Your task to perform on an android device: open chrome privacy settings Image 0: 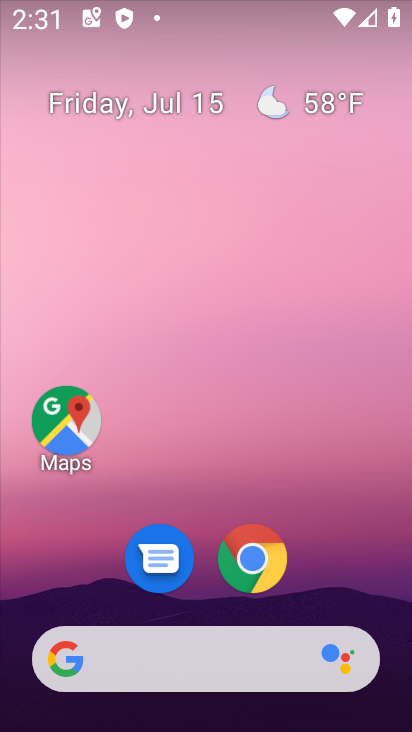
Step 0: drag from (365, 605) to (353, 151)
Your task to perform on an android device: open chrome privacy settings Image 1: 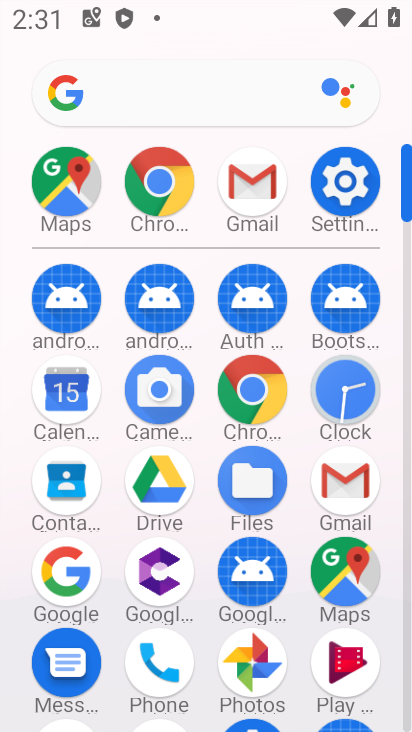
Step 1: click (271, 398)
Your task to perform on an android device: open chrome privacy settings Image 2: 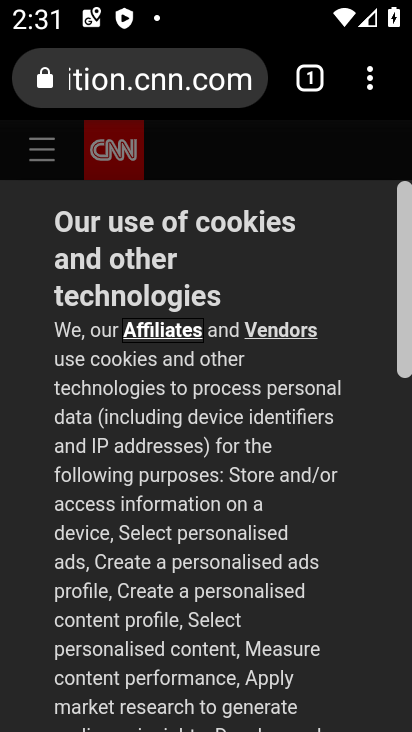
Step 2: click (368, 92)
Your task to perform on an android device: open chrome privacy settings Image 3: 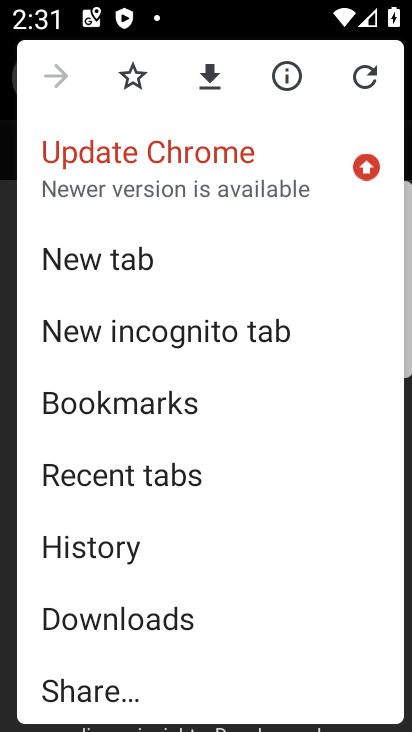
Step 3: drag from (325, 457) to (331, 357)
Your task to perform on an android device: open chrome privacy settings Image 4: 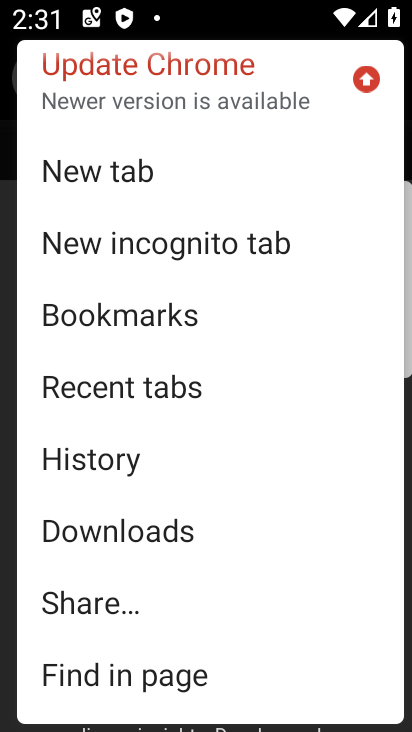
Step 4: drag from (332, 491) to (337, 378)
Your task to perform on an android device: open chrome privacy settings Image 5: 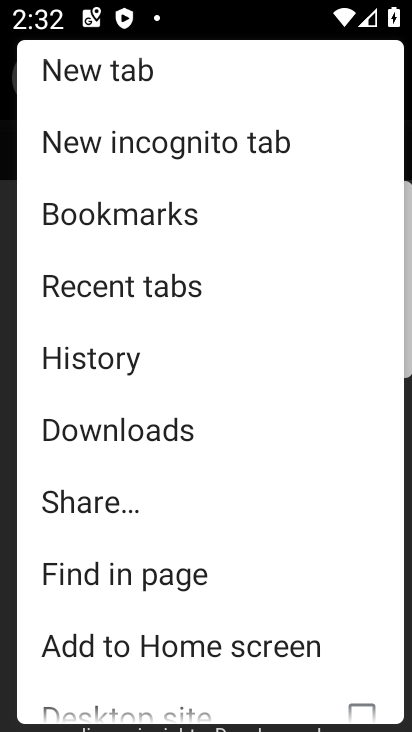
Step 5: drag from (321, 497) to (313, 358)
Your task to perform on an android device: open chrome privacy settings Image 6: 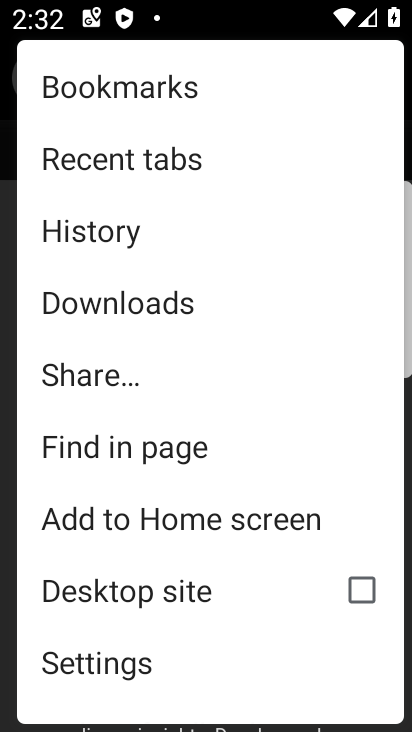
Step 6: drag from (280, 488) to (270, 359)
Your task to perform on an android device: open chrome privacy settings Image 7: 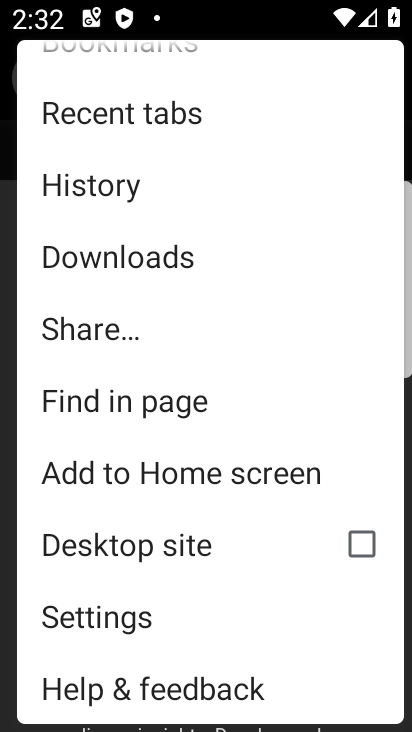
Step 7: click (225, 615)
Your task to perform on an android device: open chrome privacy settings Image 8: 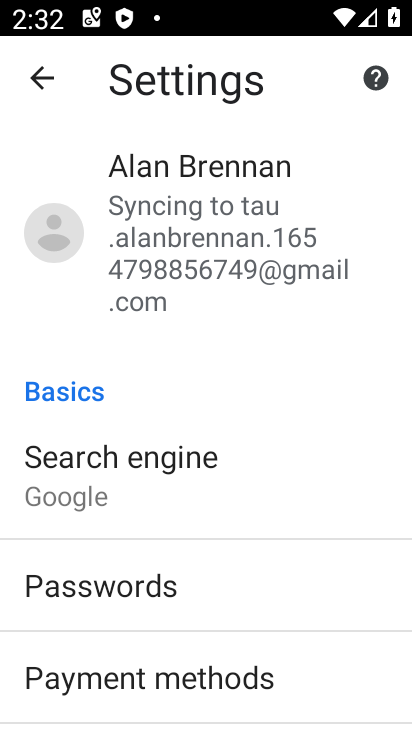
Step 8: drag from (281, 571) to (284, 464)
Your task to perform on an android device: open chrome privacy settings Image 9: 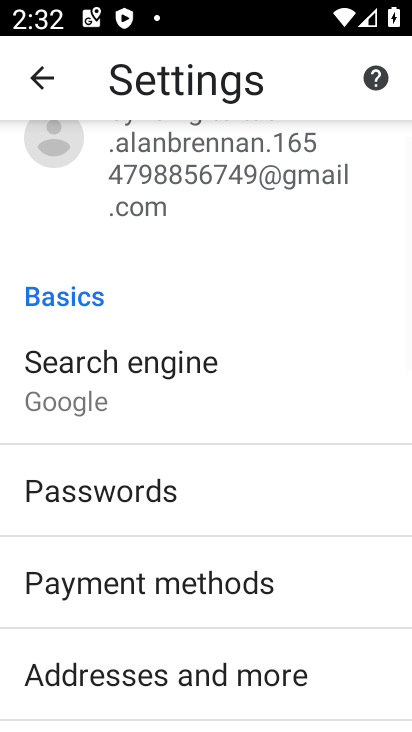
Step 9: drag from (305, 608) to (308, 501)
Your task to perform on an android device: open chrome privacy settings Image 10: 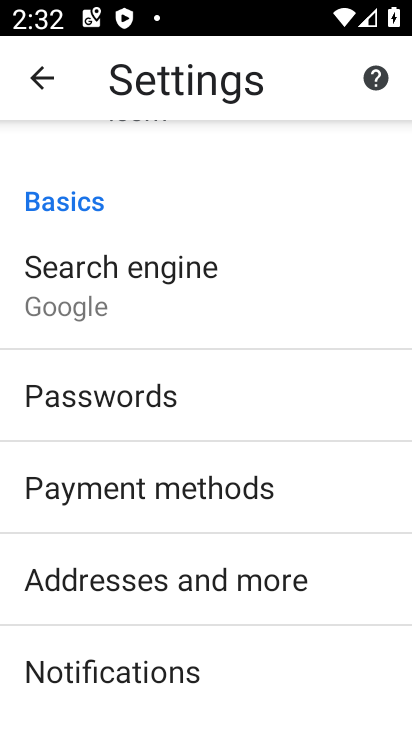
Step 10: drag from (307, 636) to (310, 515)
Your task to perform on an android device: open chrome privacy settings Image 11: 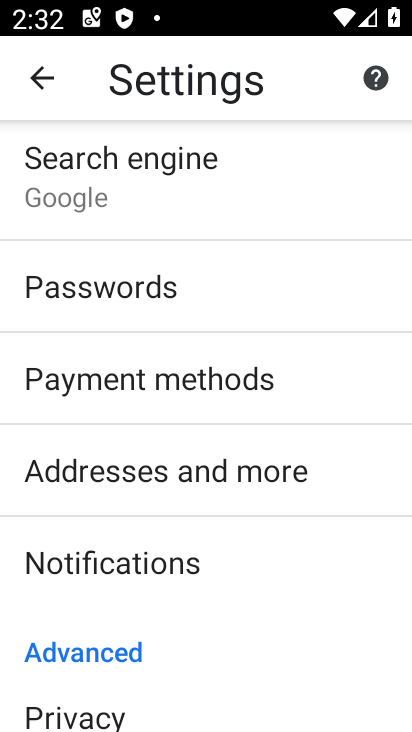
Step 11: drag from (314, 596) to (313, 450)
Your task to perform on an android device: open chrome privacy settings Image 12: 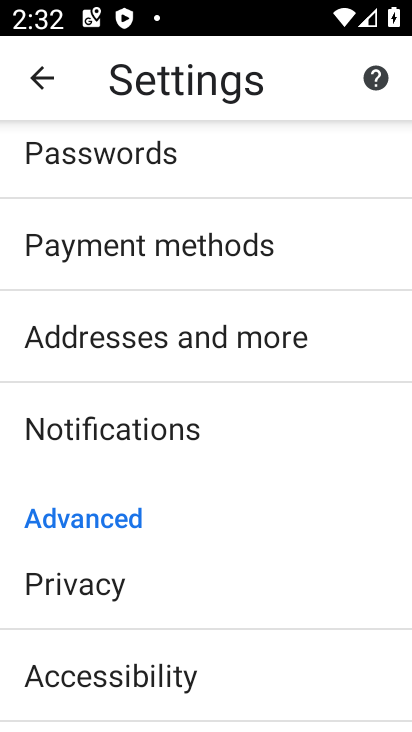
Step 12: drag from (316, 610) to (317, 467)
Your task to perform on an android device: open chrome privacy settings Image 13: 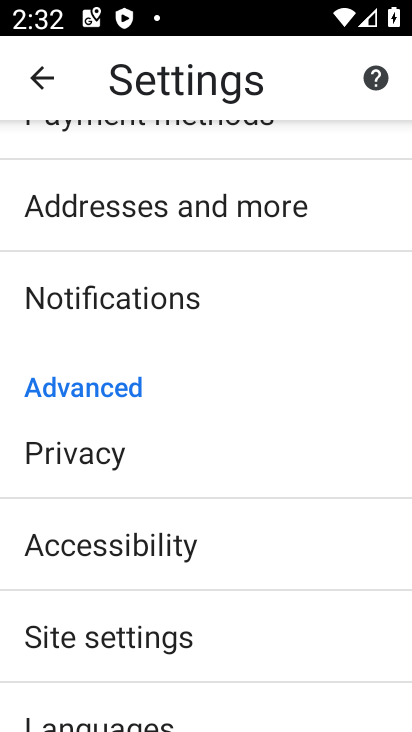
Step 13: click (268, 461)
Your task to perform on an android device: open chrome privacy settings Image 14: 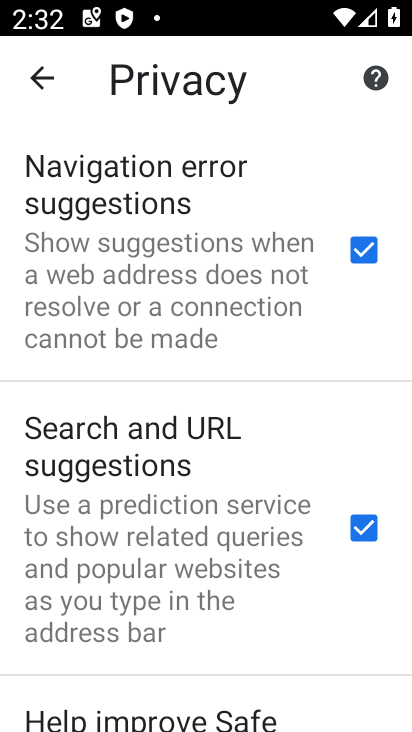
Step 14: task complete